Your task to perform on an android device: Open the map Image 0: 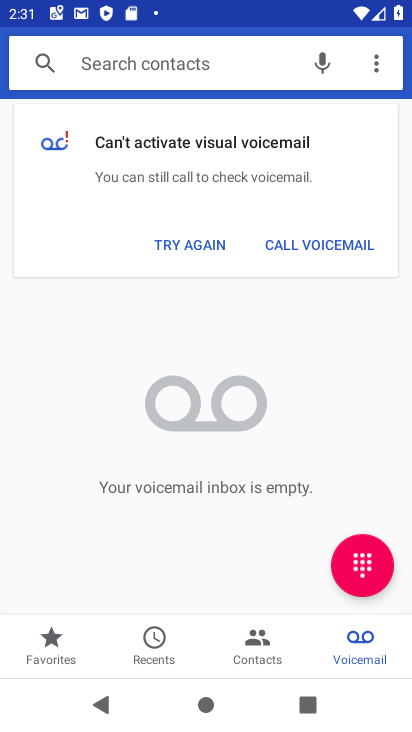
Step 0: press home button
Your task to perform on an android device: Open the map Image 1: 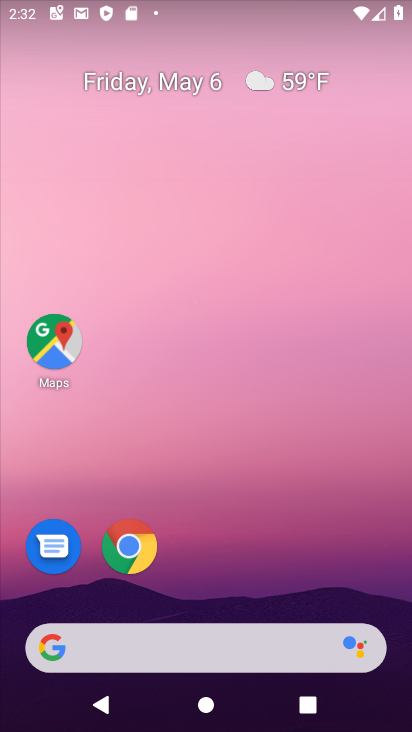
Step 1: click (51, 343)
Your task to perform on an android device: Open the map Image 2: 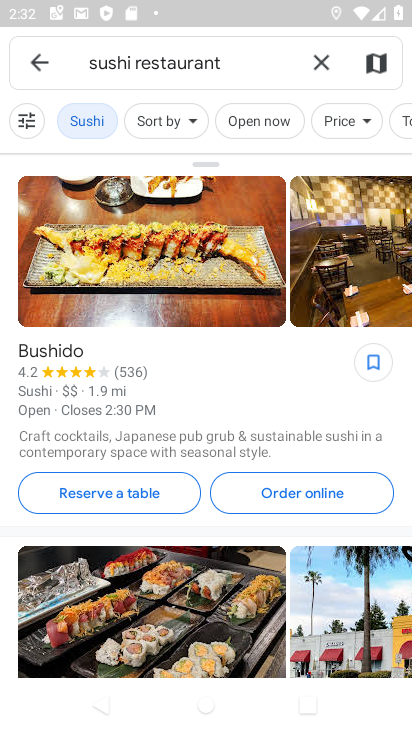
Step 2: task complete